Your task to perform on an android device: snooze an email in the gmail app Image 0: 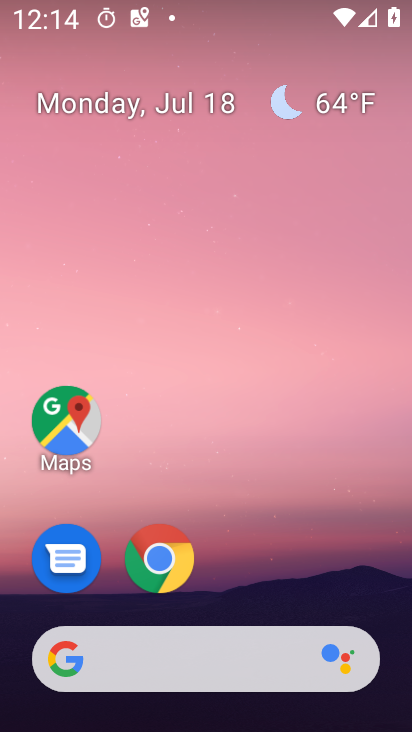
Step 0: drag from (352, 562) to (378, 213)
Your task to perform on an android device: snooze an email in the gmail app Image 1: 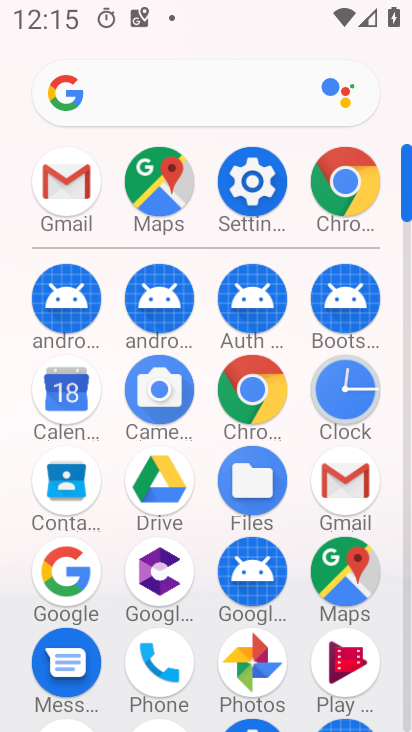
Step 1: click (342, 485)
Your task to perform on an android device: snooze an email in the gmail app Image 2: 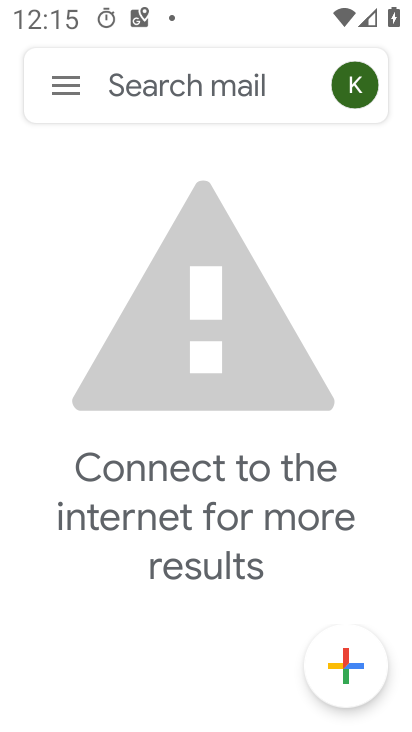
Step 2: click (54, 93)
Your task to perform on an android device: snooze an email in the gmail app Image 3: 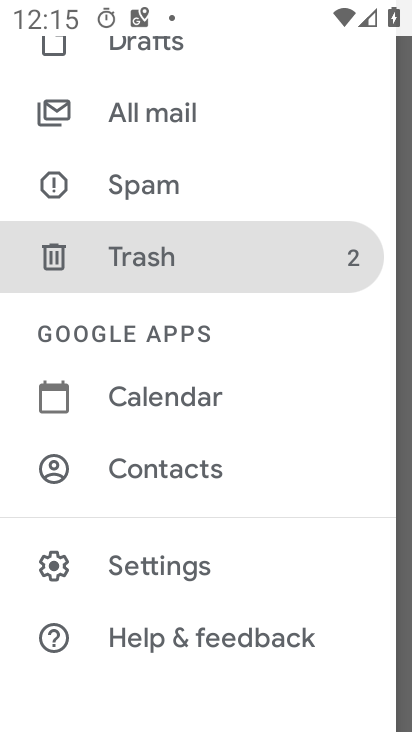
Step 3: drag from (303, 509) to (316, 411)
Your task to perform on an android device: snooze an email in the gmail app Image 4: 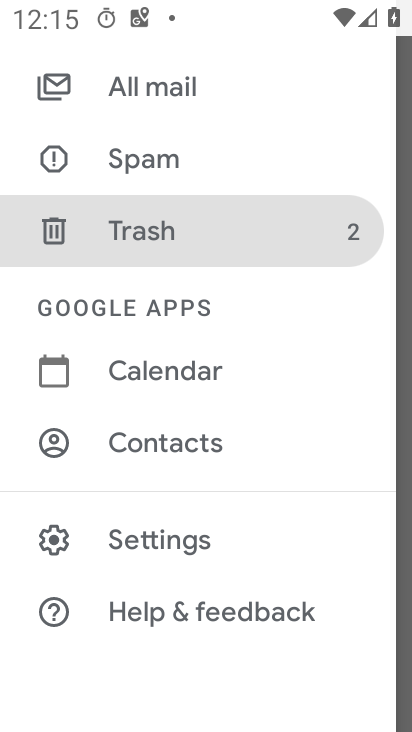
Step 4: drag from (310, 381) to (321, 467)
Your task to perform on an android device: snooze an email in the gmail app Image 5: 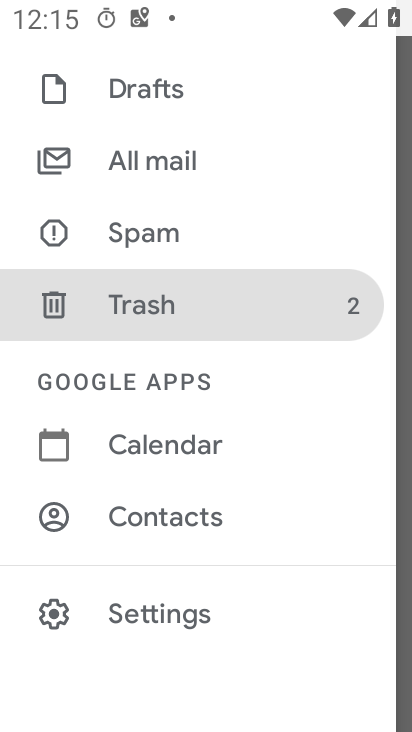
Step 5: drag from (308, 205) to (307, 327)
Your task to perform on an android device: snooze an email in the gmail app Image 6: 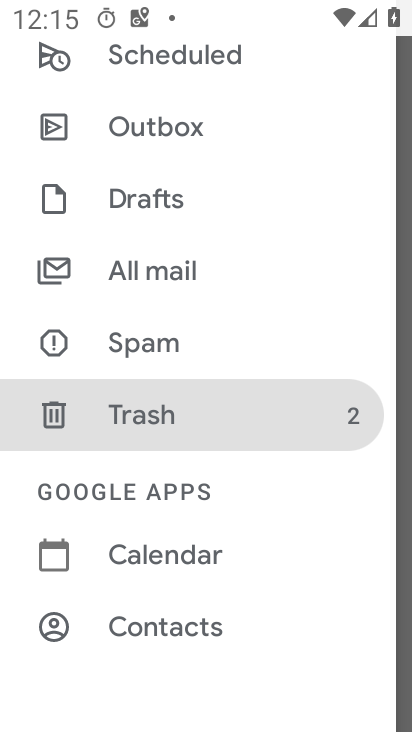
Step 6: drag from (296, 193) to (304, 358)
Your task to perform on an android device: snooze an email in the gmail app Image 7: 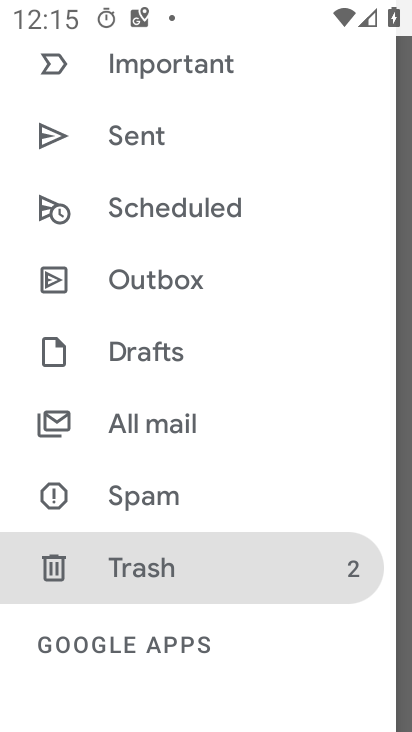
Step 7: drag from (315, 257) to (316, 350)
Your task to perform on an android device: snooze an email in the gmail app Image 8: 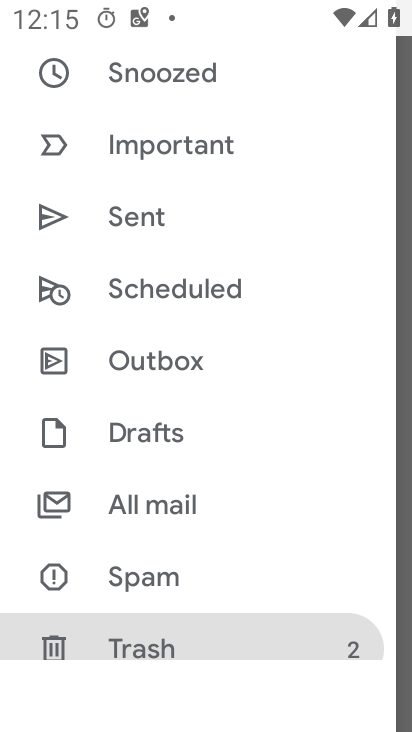
Step 8: drag from (298, 275) to (310, 400)
Your task to perform on an android device: snooze an email in the gmail app Image 9: 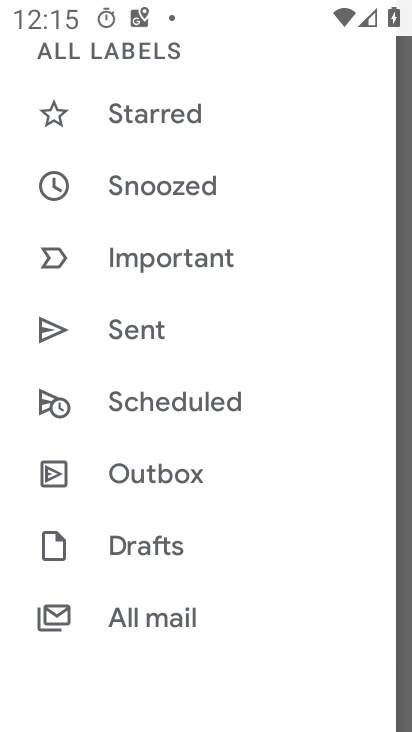
Step 9: drag from (311, 245) to (329, 369)
Your task to perform on an android device: snooze an email in the gmail app Image 10: 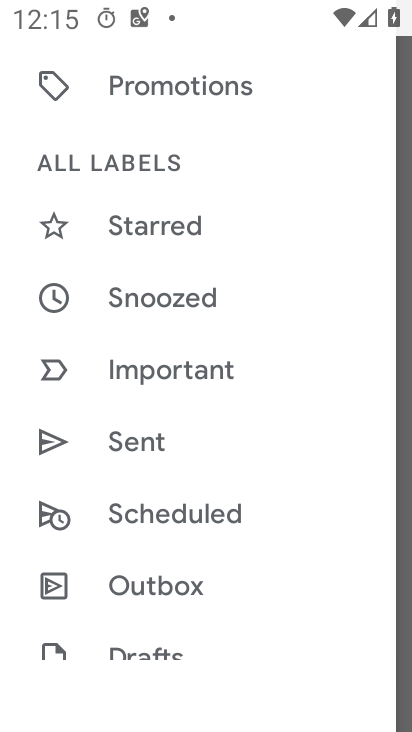
Step 10: drag from (337, 237) to (346, 392)
Your task to perform on an android device: snooze an email in the gmail app Image 11: 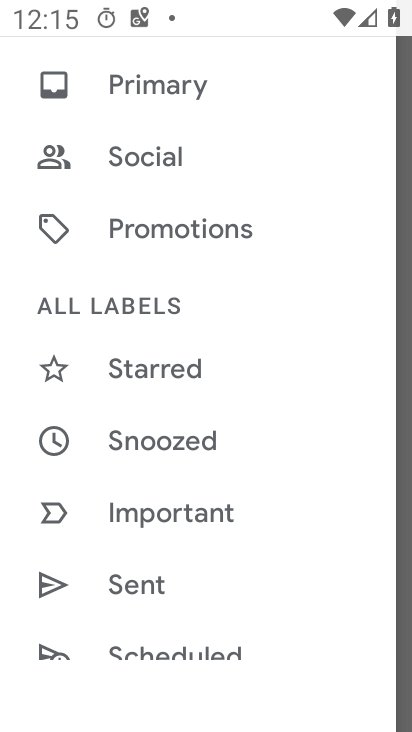
Step 11: drag from (338, 235) to (360, 428)
Your task to perform on an android device: snooze an email in the gmail app Image 12: 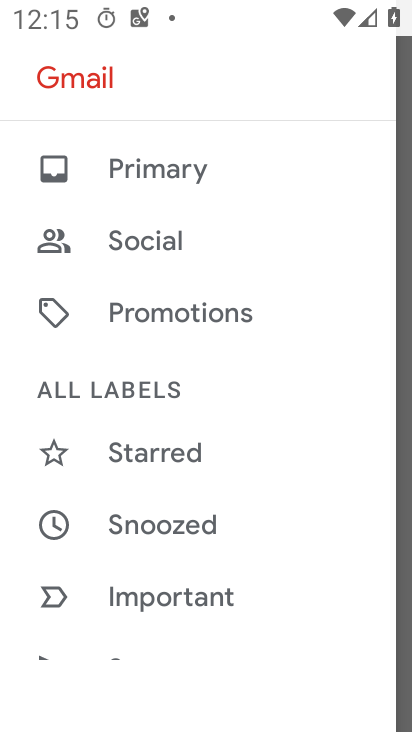
Step 12: click (236, 530)
Your task to perform on an android device: snooze an email in the gmail app Image 13: 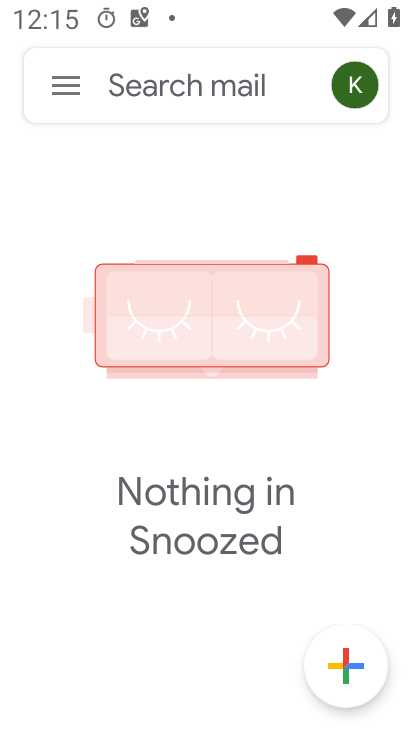
Step 13: task complete